Your task to perform on an android device: open app "Google Translate" (install if not already installed) Image 0: 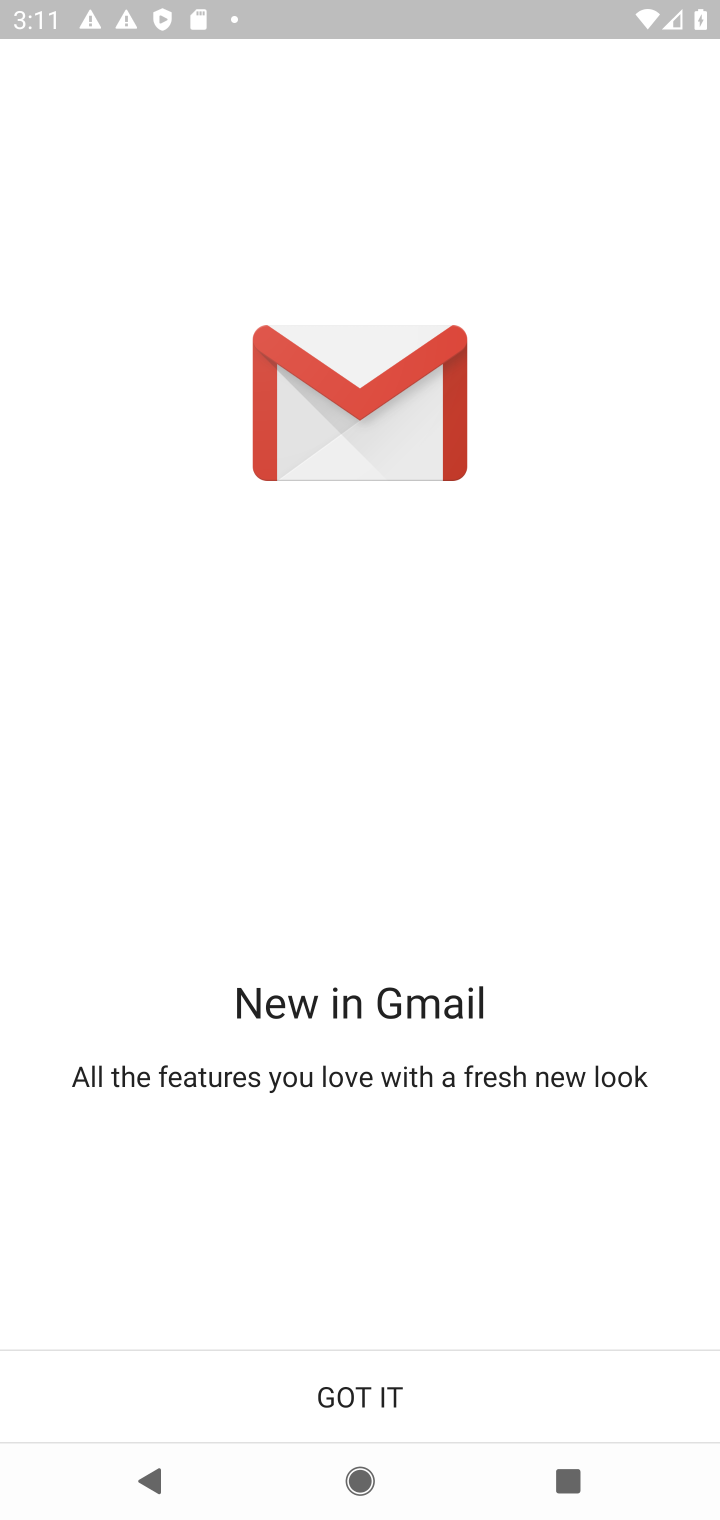
Step 0: press home button
Your task to perform on an android device: open app "Google Translate" (install if not already installed) Image 1: 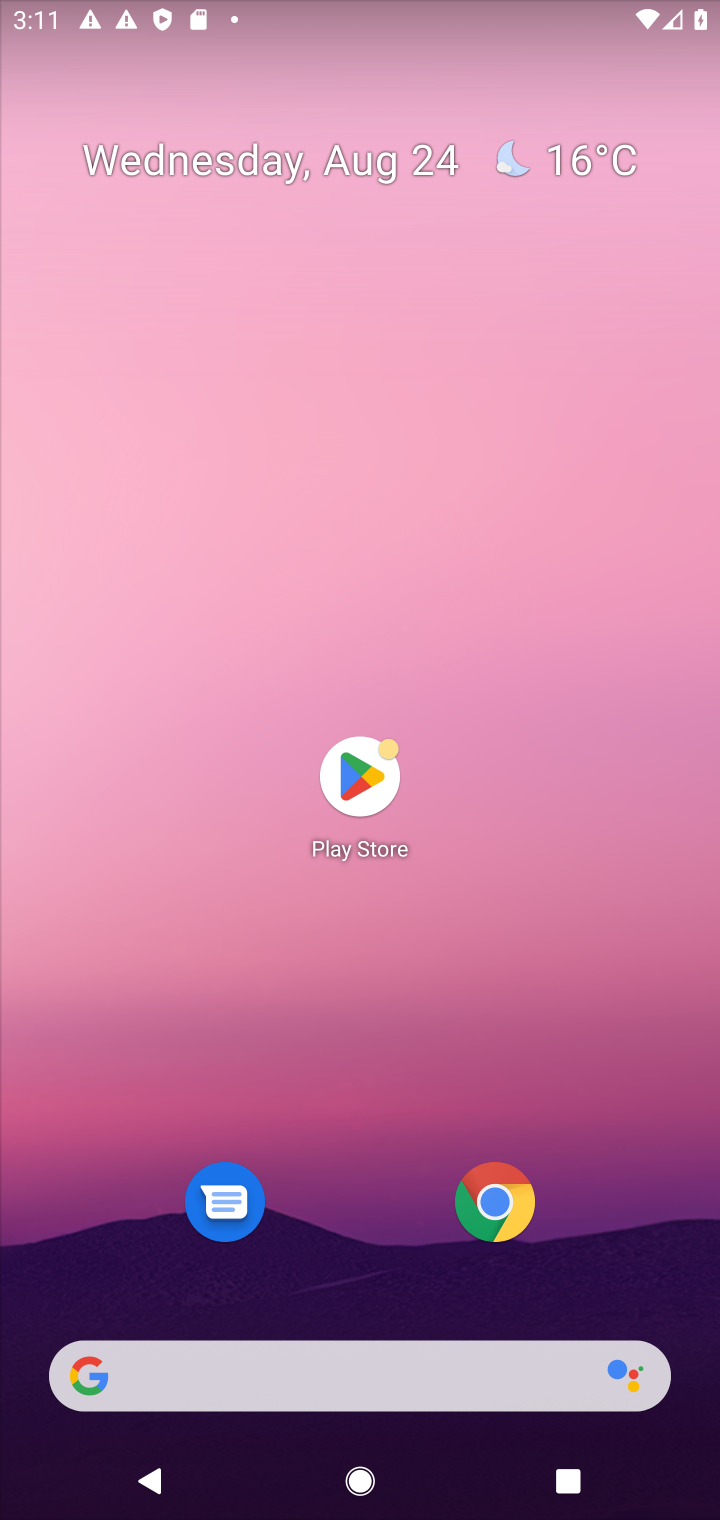
Step 1: click (368, 768)
Your task to perform on an android device: open app "Google Translate" (install if not already installed) Image 2: 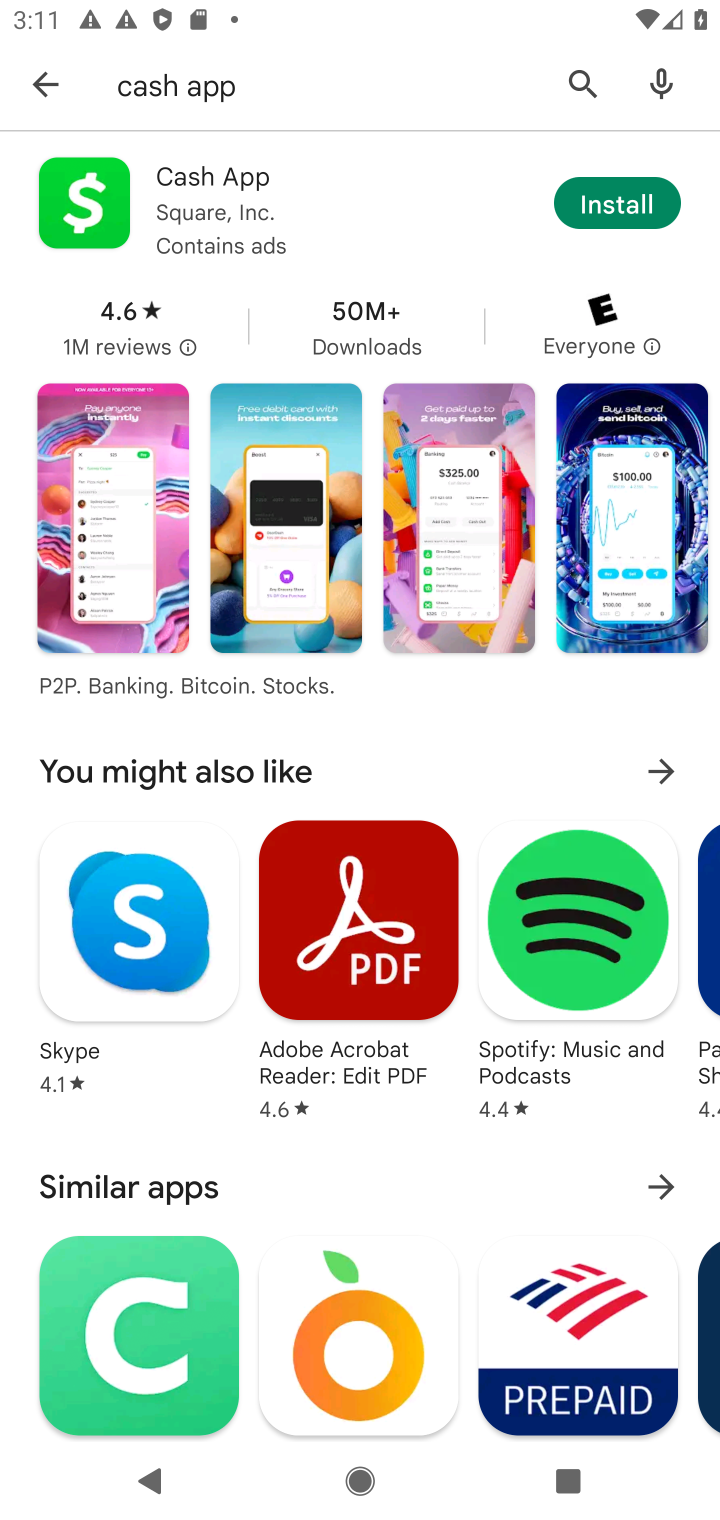
Step 2: click (579, 80)
Your task to perform on an android device: open app "Google Translate" (install if not already installed) Image 3: 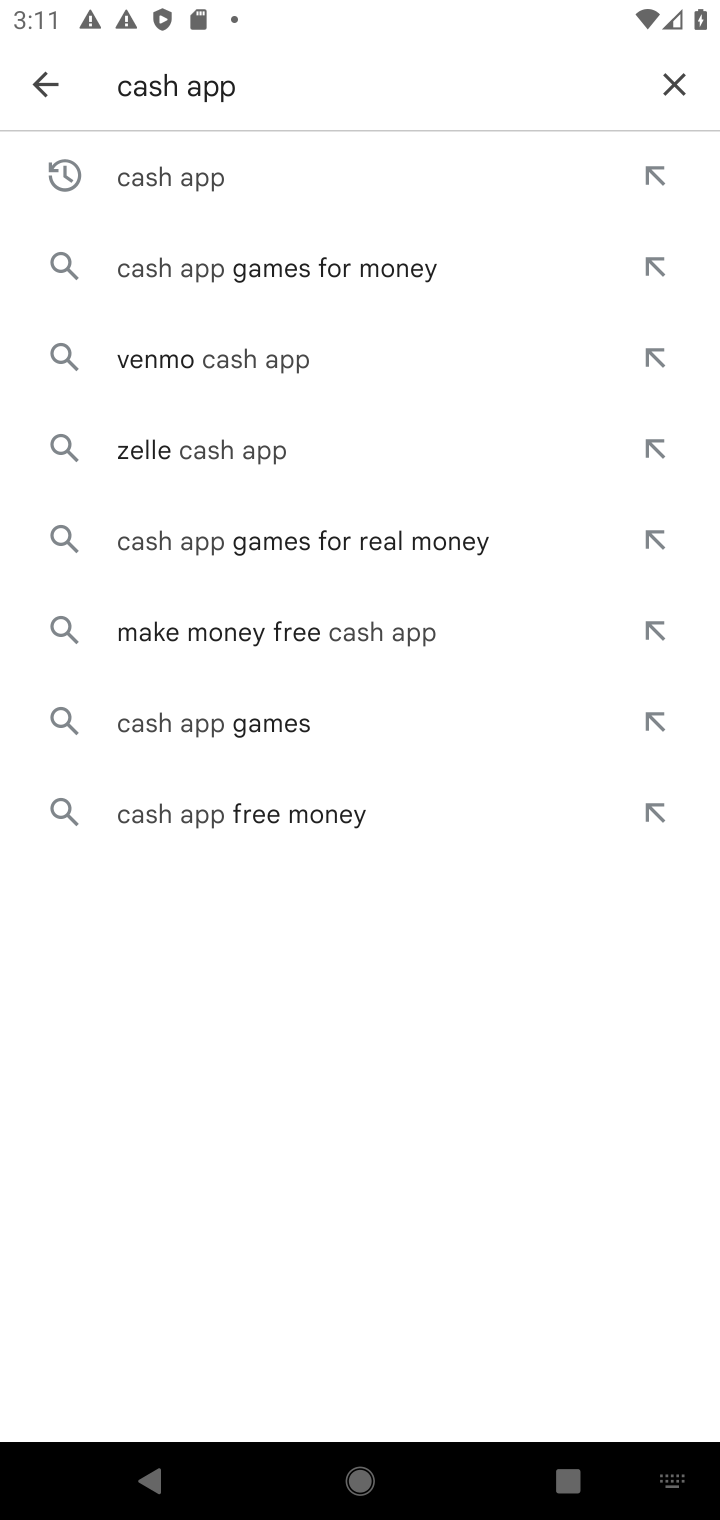
Step 3: click (667, 75)
Your task to perform on an android device: open app "Google Translate" (install if not already installed) Image 4: 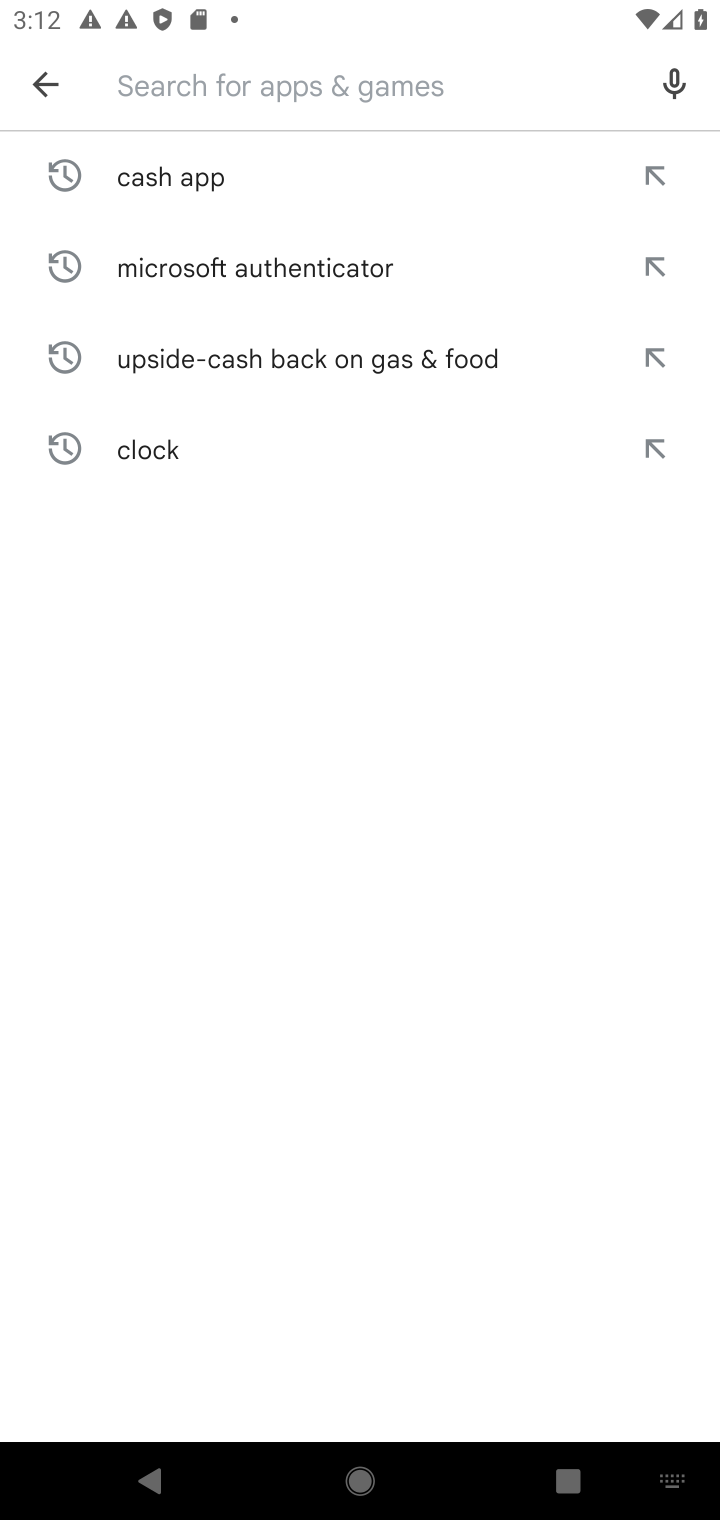
Step 4: type "Google Translate"
Your task to perform on an android device: open app "Google Translate" (install if not already installed) Image 5: 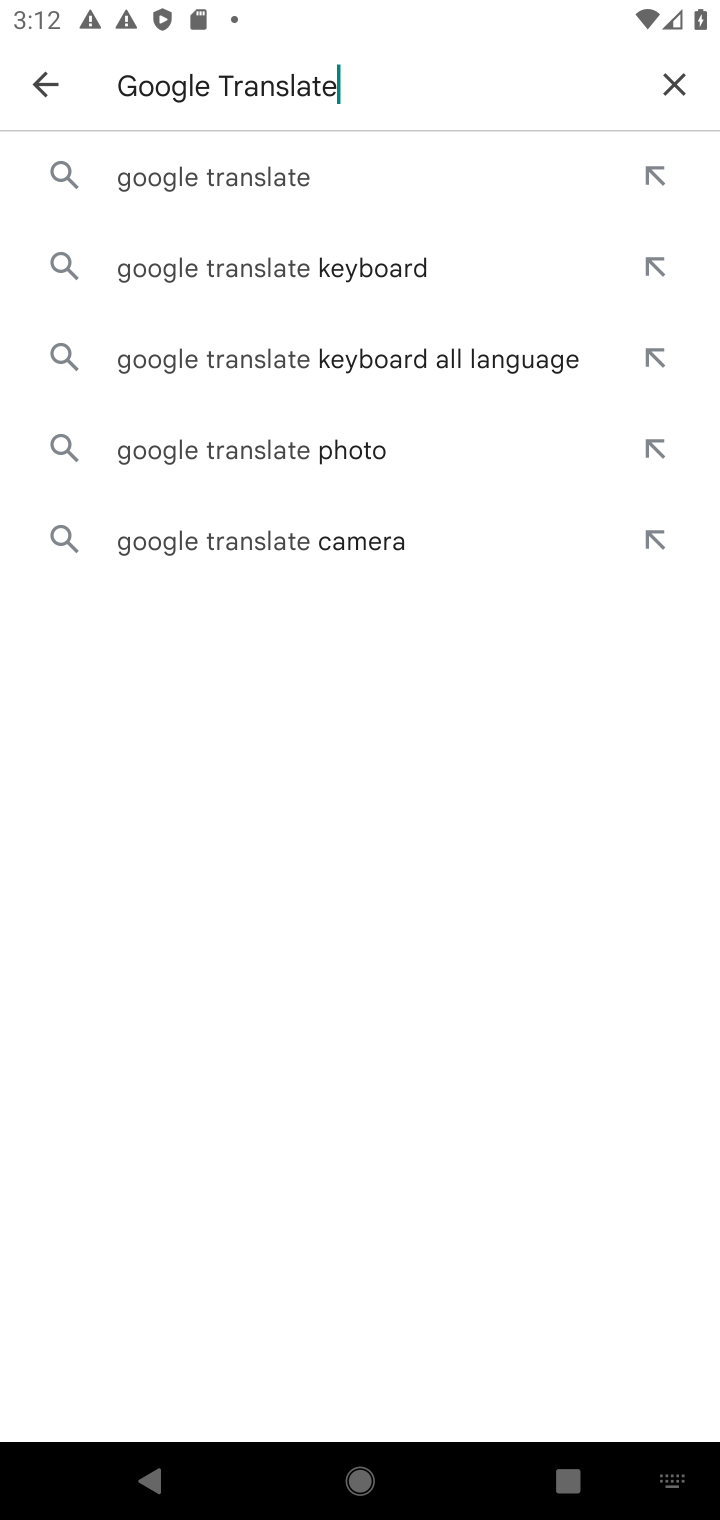
Step 5: click (287, 176)
Your task to perform on an android device: open app "Google Translate" (install if not already installed) Image 6: 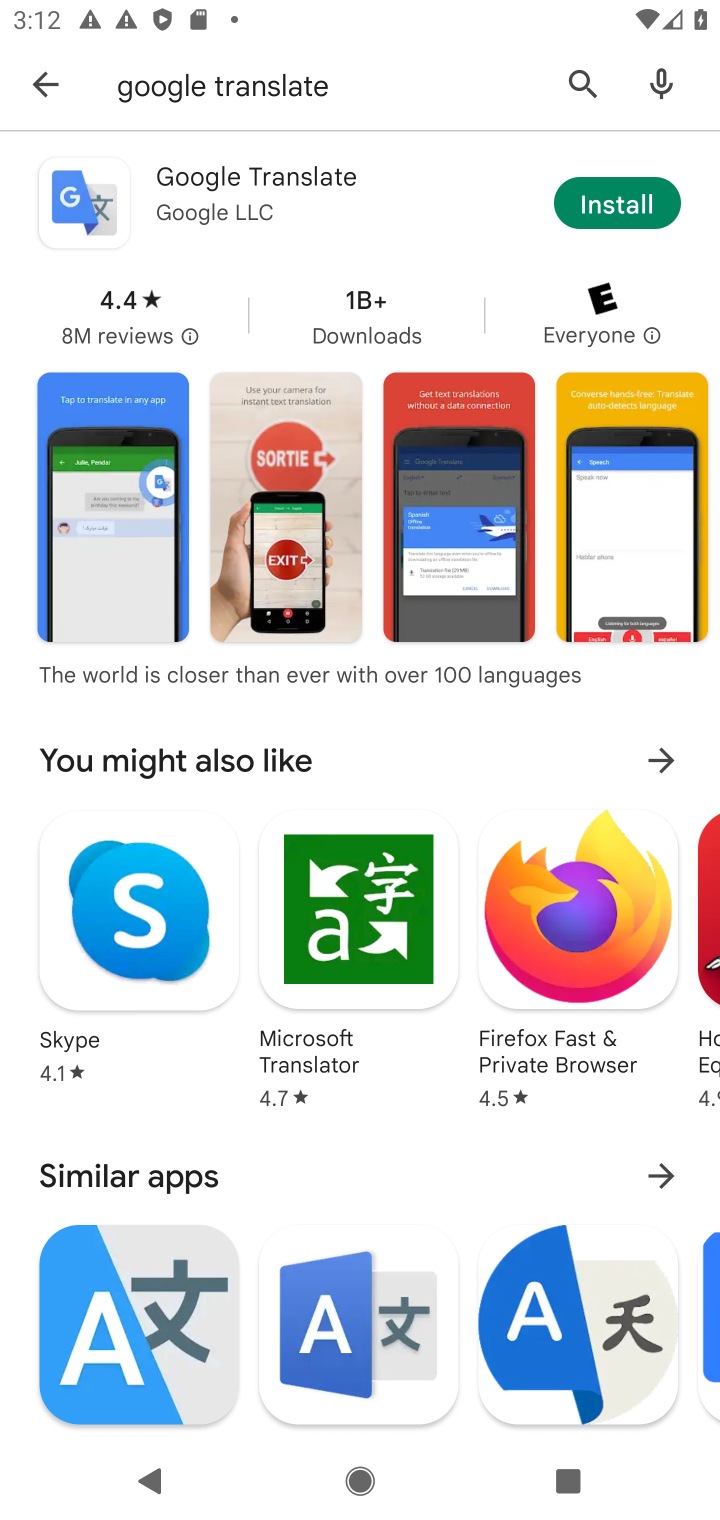
Step 6: click (632, 193)
Your task to perform on an android device: open app "Google Translate" (install if not already installed) Image 7: 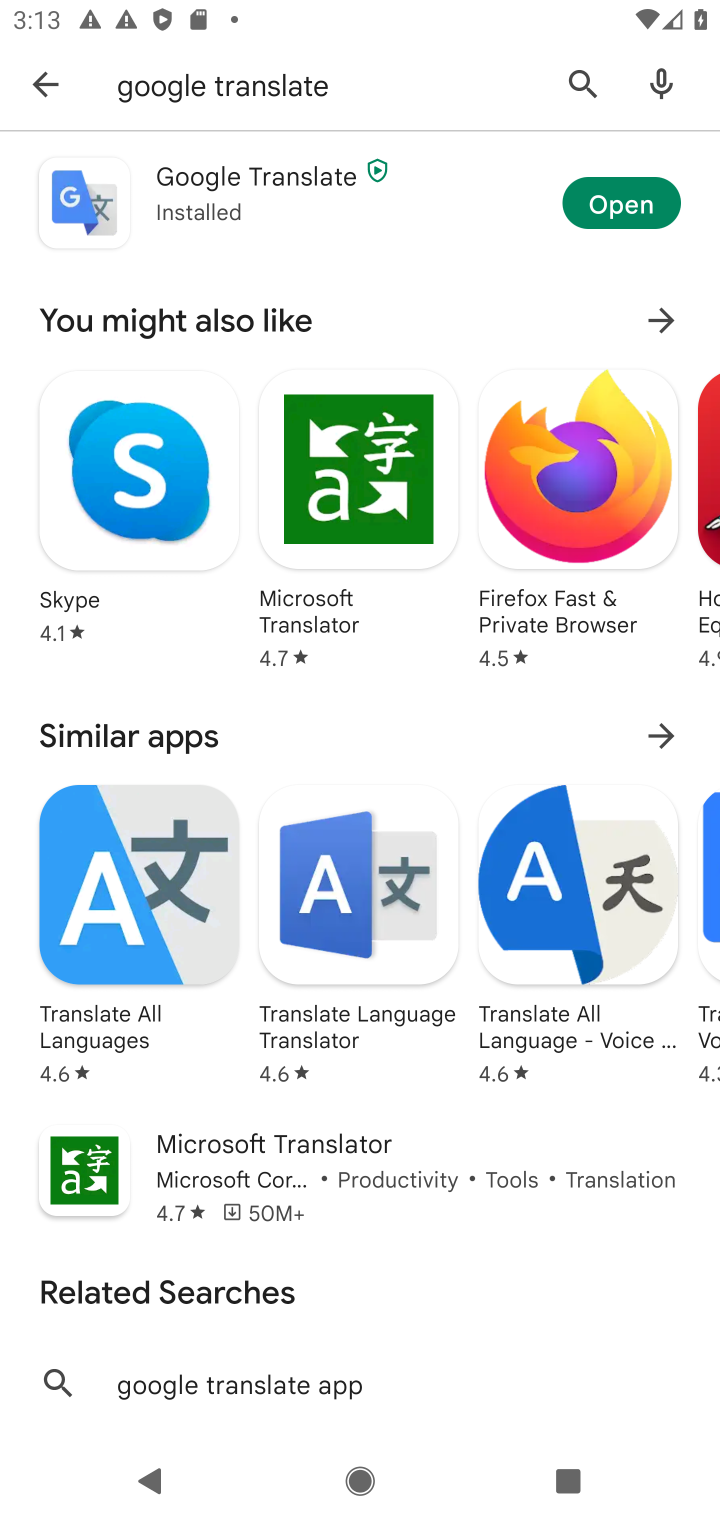
Step 7: click (623, 204)
Your task to perform on an android device: open app "Google Translate" (install if not already installed) Image 8: 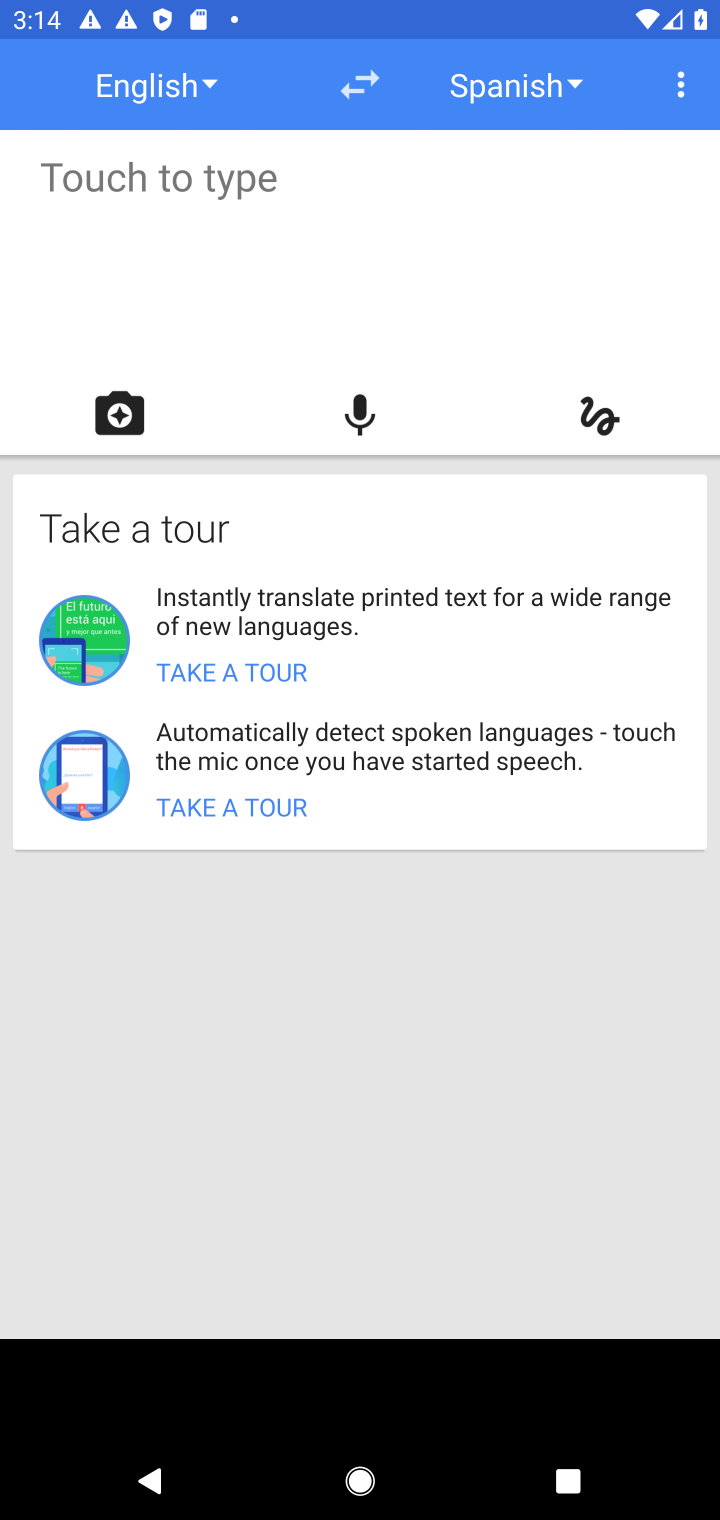
Step 8: task complete